Your task to perform on an android device: Open location settings Image 0: 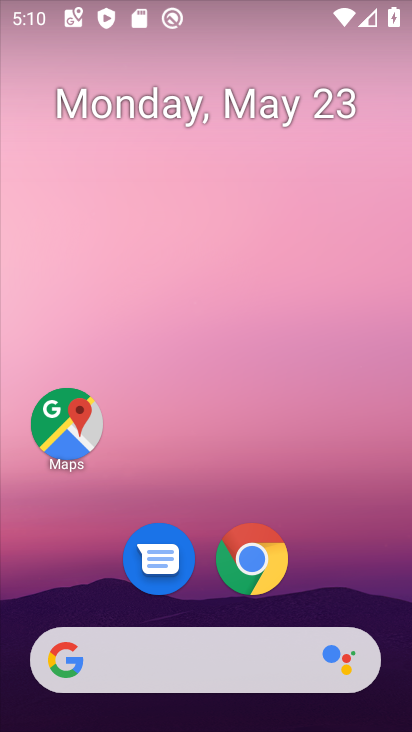
Step 0: drag from (270, 542) to (258, 6)
Your task to perform on an android device: Open location settings Image 1: 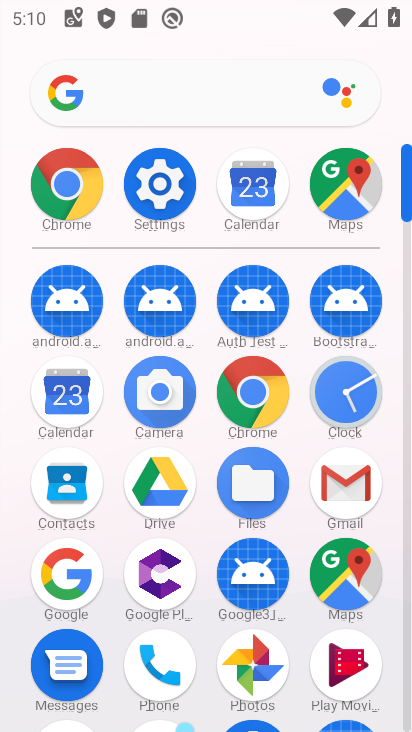
Step 1: click (167, 173)
Your task to perform on an android device: Open location settings Image 2: 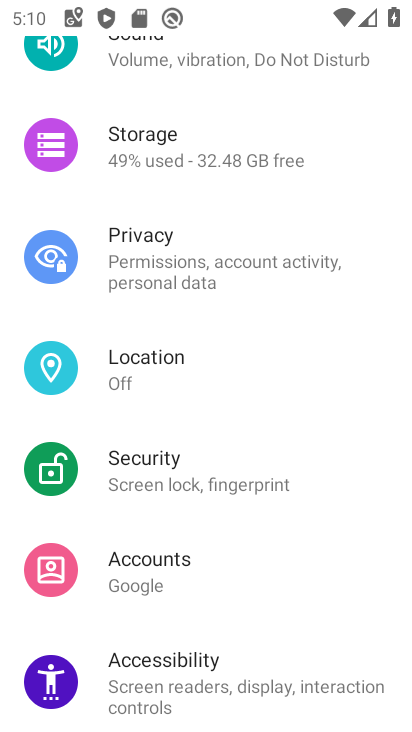
Step 2: click (189, 366)
Your task to perform on an android device: Open location settings Image 3: 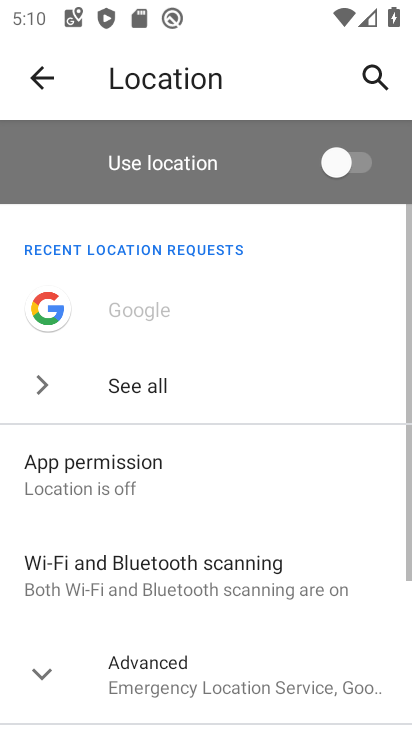
Step 3: task complete